Your task to perform on an android device: install app "DoorDash - Food Delivery" Image 0: 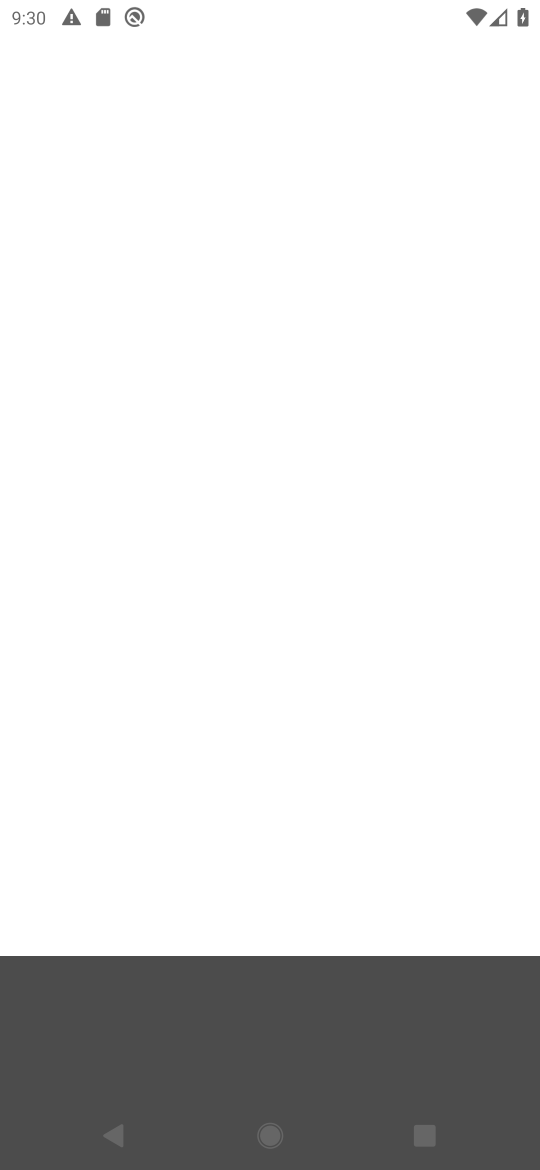
Step 0: press home button
Your task to perform on an android device: install app "DoorDash - Food Delivery" Image 1: 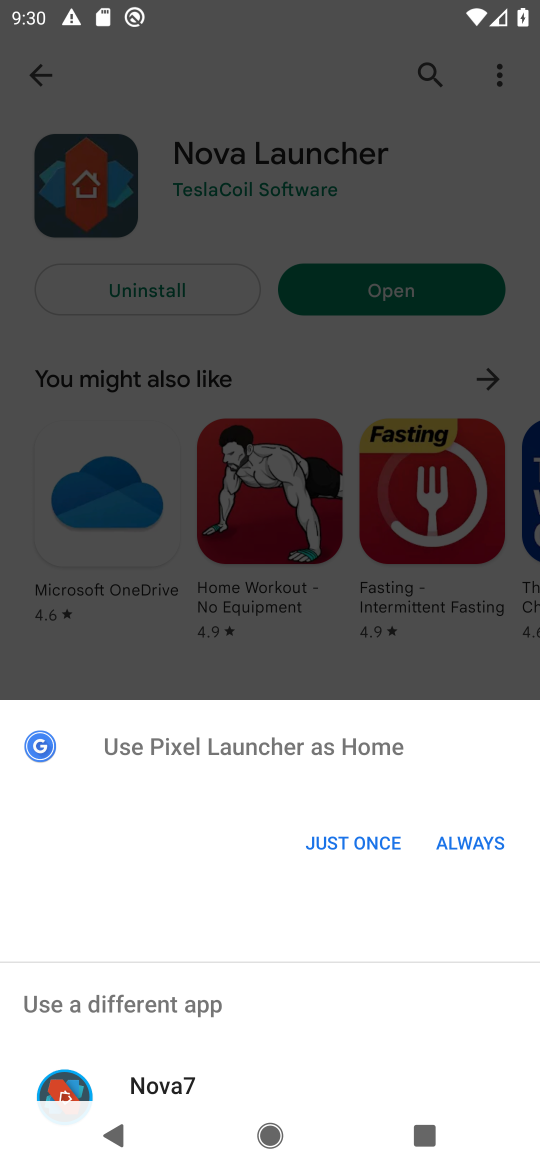
Step 1: press home button
Your task to perform on an android device: install app "DoorDash - Food Delivery" Image 2: 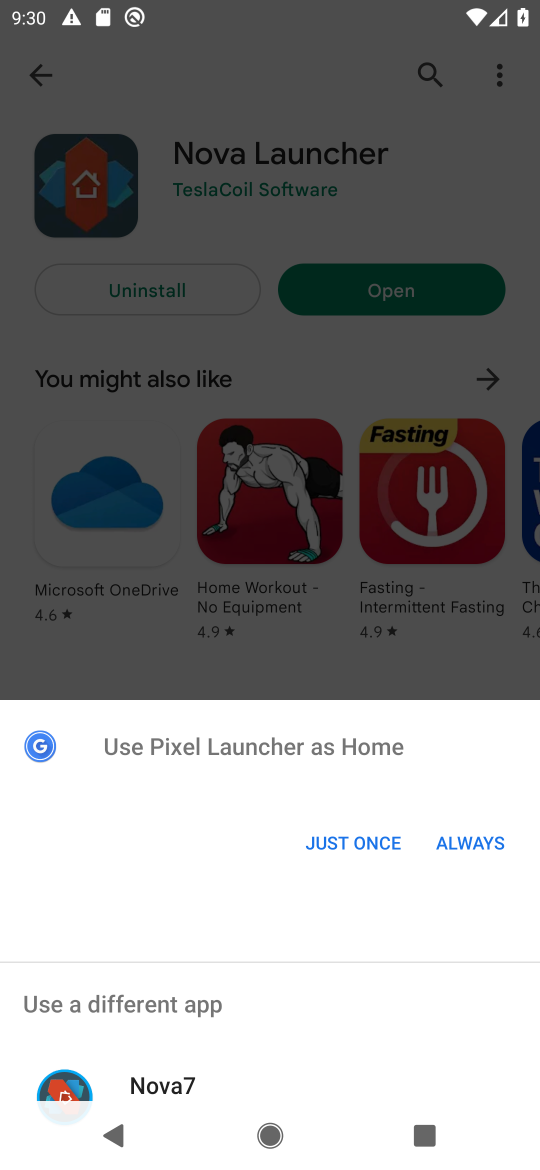
Step 2: drag from (231, 986) to (215, 732)
Your task to perform on an android device: install app "DoorDash - Food Delivery" Image 3: 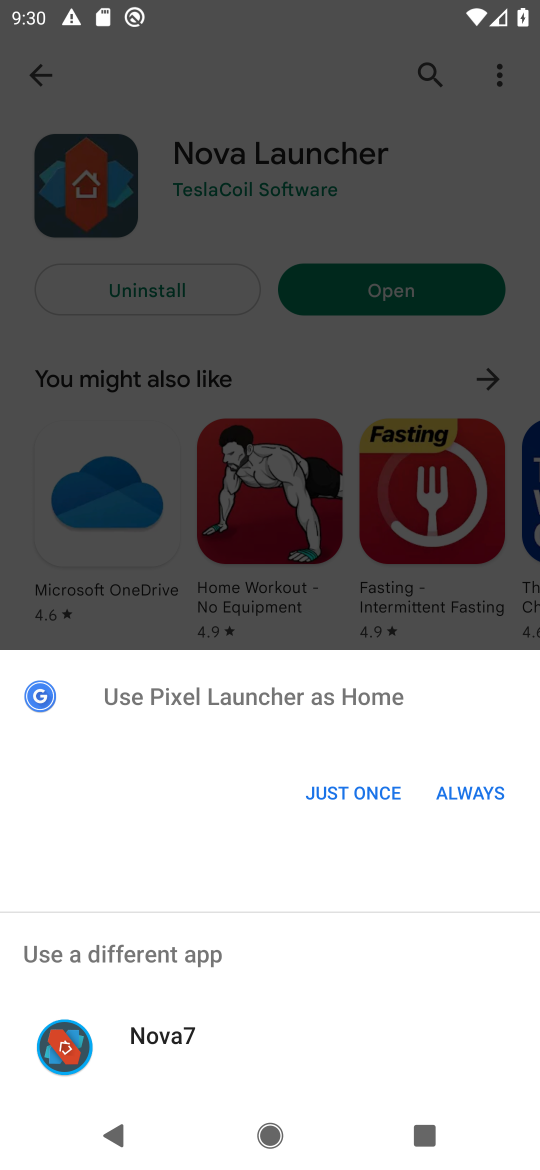
Step 3: click (453, 789)
Your task to perform on an android device: install app "DoorDash - Food Delivery" Image 4: 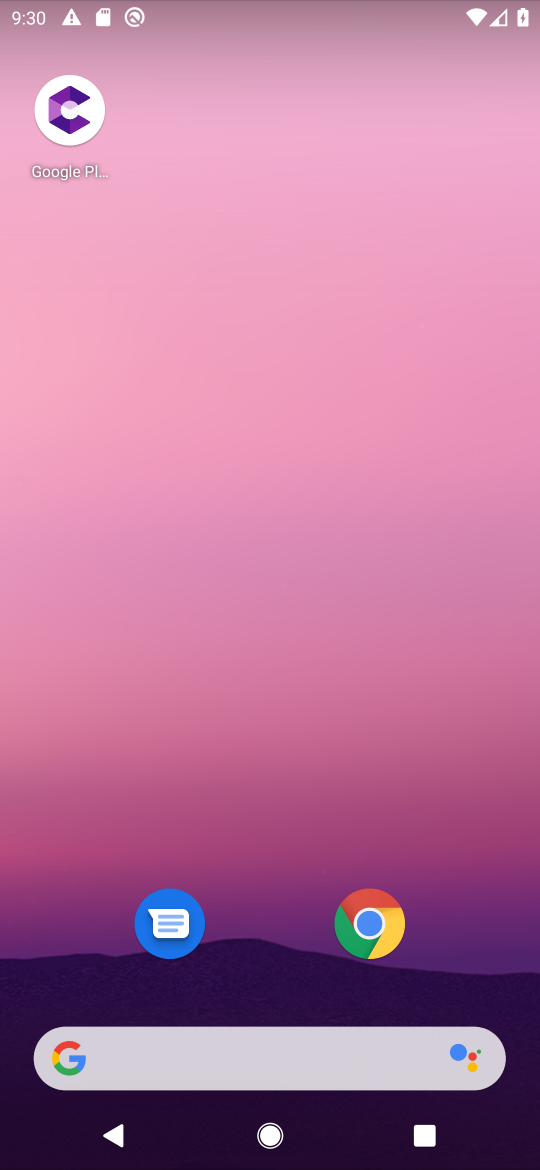
Step 4: drag from (249, 853) to (244, 221)
Your task to perform on an android device: install app "DoorDash - Food Delivery" Image 5: 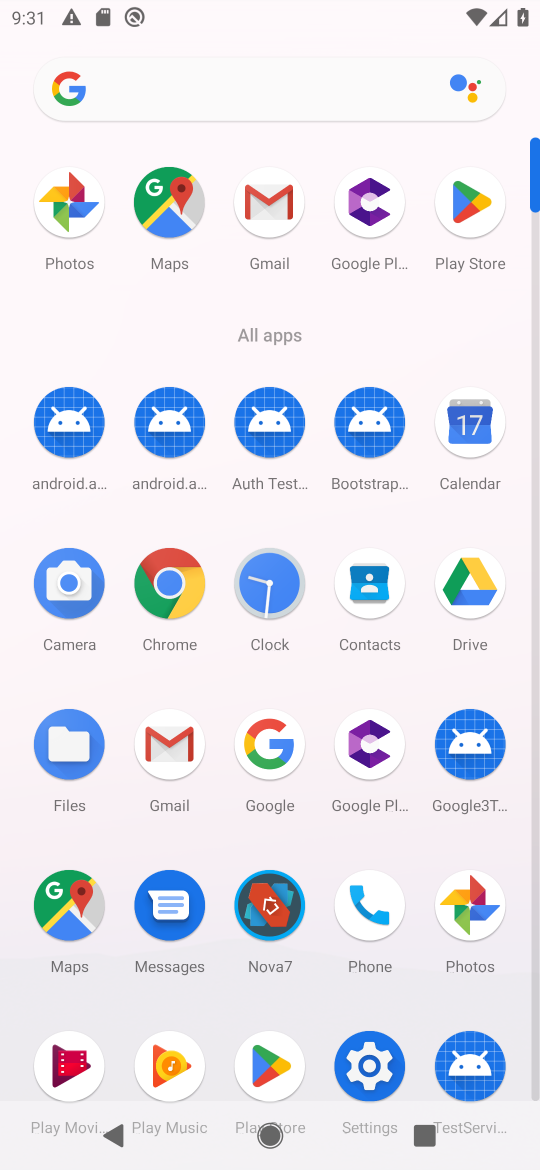
Step 5: click (491, 195)
Your task to perform on an android device: install app "DoorDash - Food Delivery" Image 6: 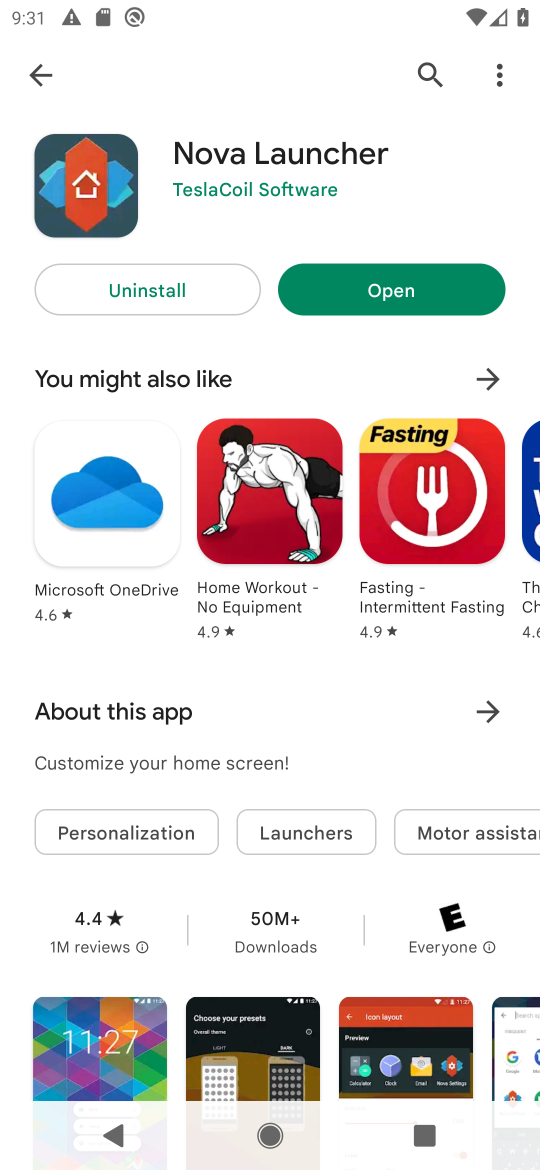
Step 6: click (421, 80)
Your task to perform on an android device: install app "DoorDash - Food Delivery" Image 7: 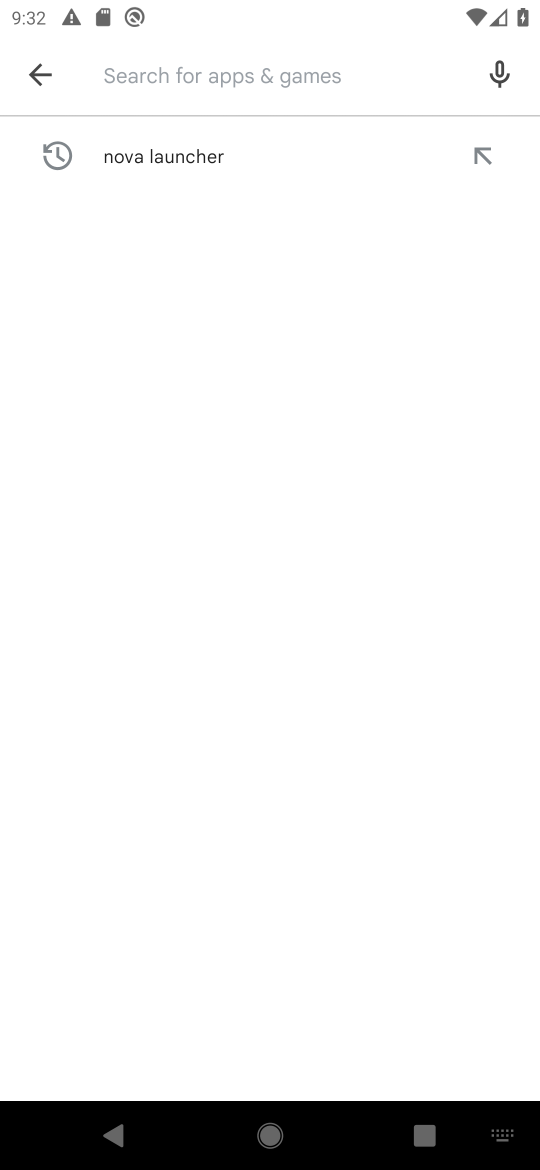
Step 7: type "doordash-food"
Your task to perform on an android device: install app "DoorDash - Food Delivery" Image 8: 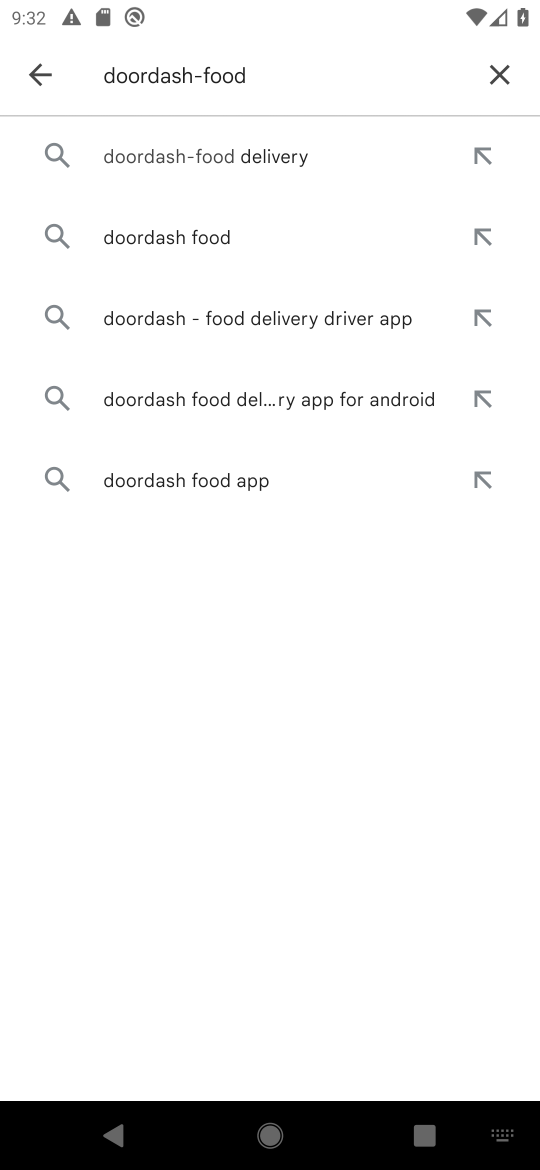
Step 8: click (155, 150)
Your task to perform on an android device: install app "DoorDash - Food Delivery" Image 9: 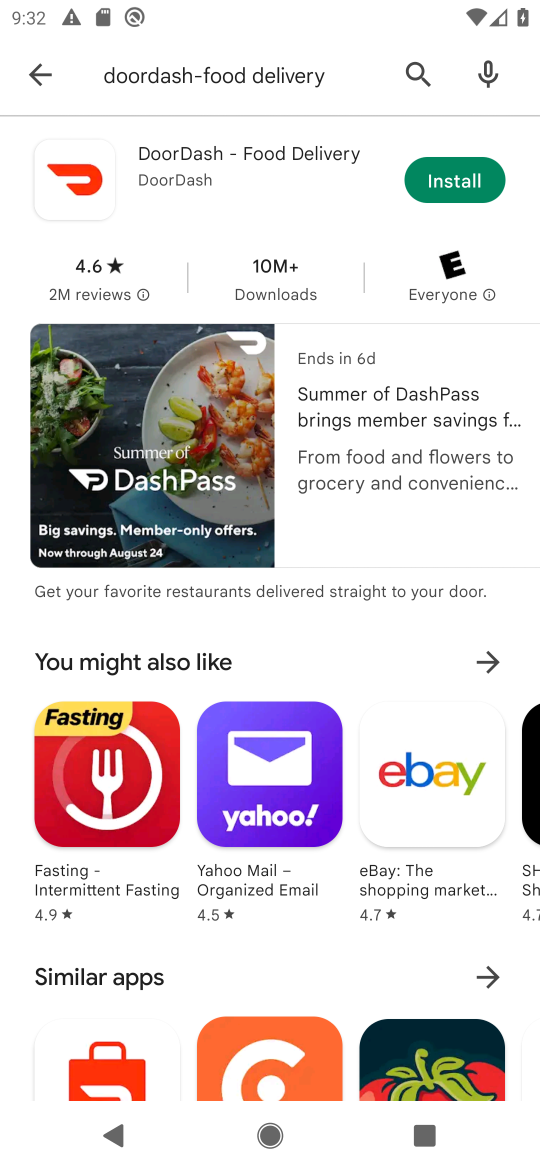
Step 9: click (471, 199)
Your task to perform on an android device: install app "DoorDash - Food Delivery" Image 10: 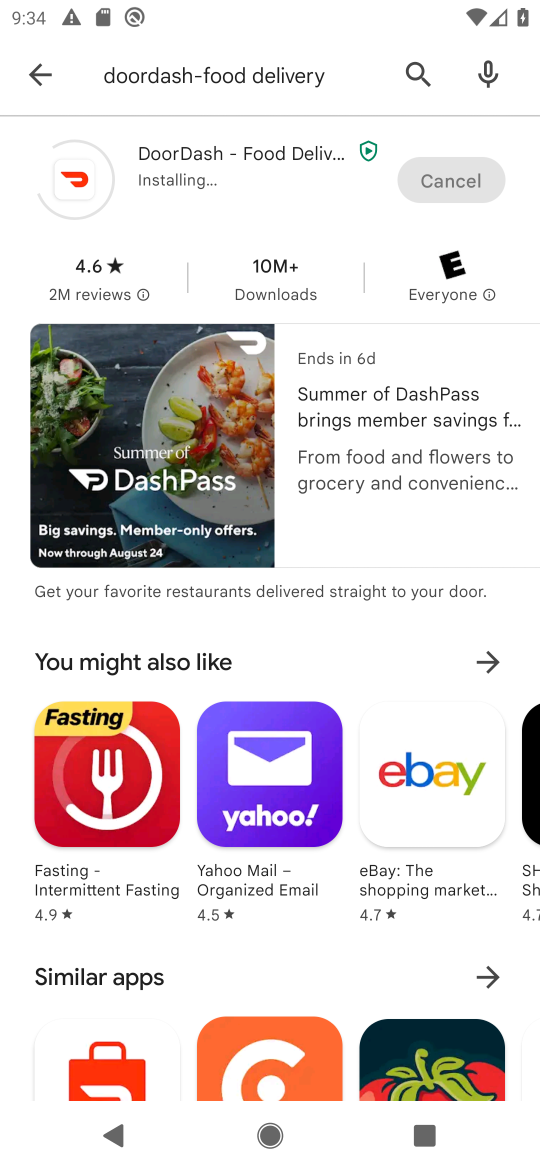
Step 10: task complete